Your task to perform on an android device: Open Android settings Image 0: 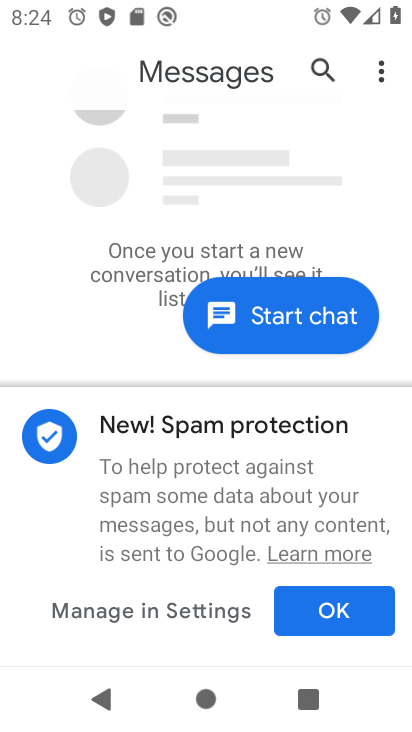
Step 0: press home button
Your task to perform on an android device: Open Android settings Image 1: 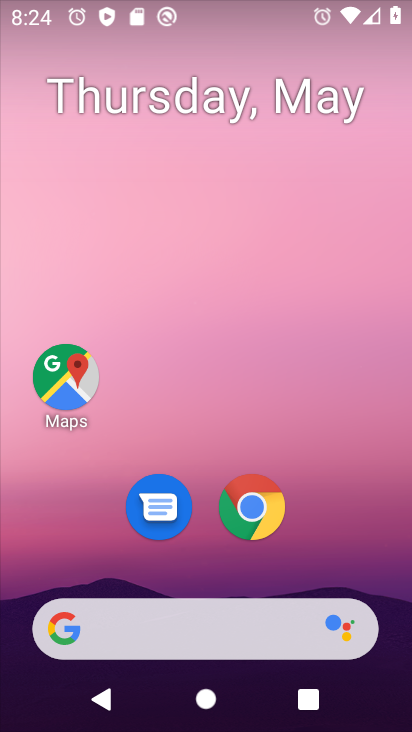
Step 1: drag from (215, 578) to (236, 33)
Your task to perform on an android device: Open Android settings Image 2: 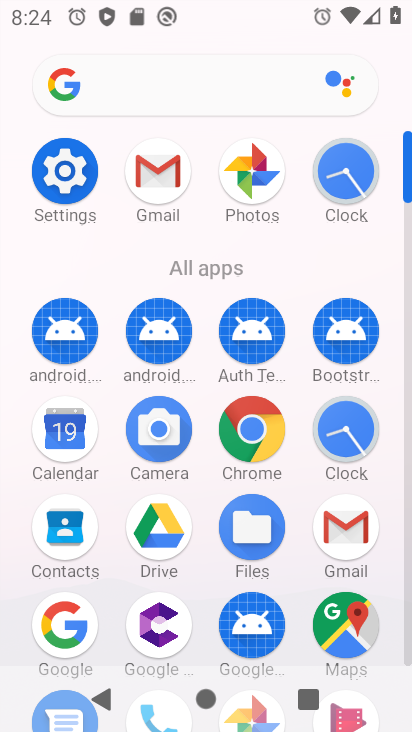
Step 2: click (41, 170)
Your task to perform on an android device: Open Android settings Image 3: 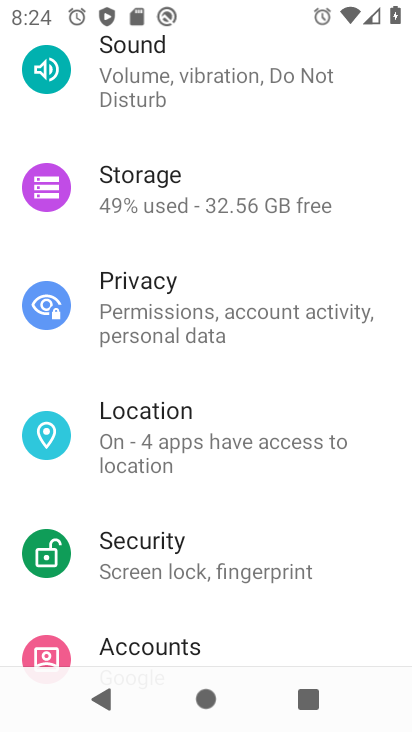
Step 3: task complete